Your task to perform on an android device: Search for seafood restaurants on Google Maps Image 0: 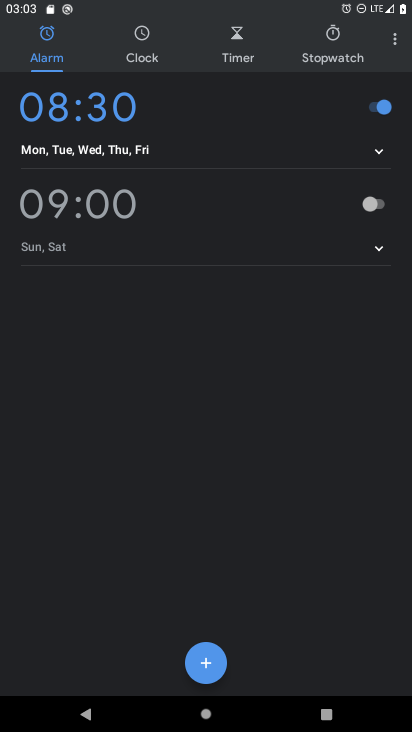
Step 0: drag from (273, 588) to (255, 110)
Your task to perform on an android device: Search for seafood restaurants on Google Maps Image 1: 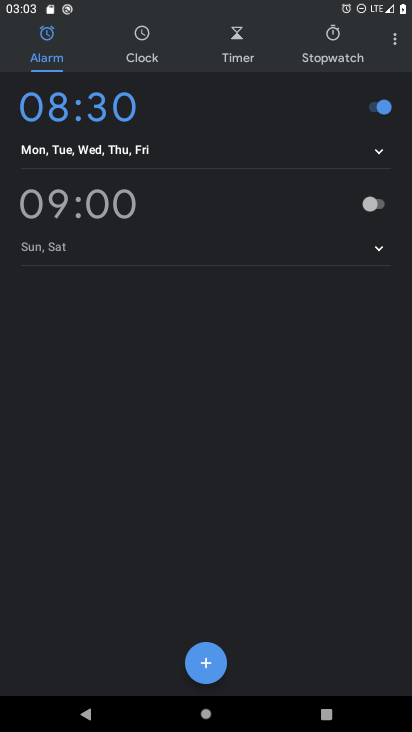
Step 1: press home button
Your task to perform on an android device: Search for seafood restaurants on Google Maps Image 2: 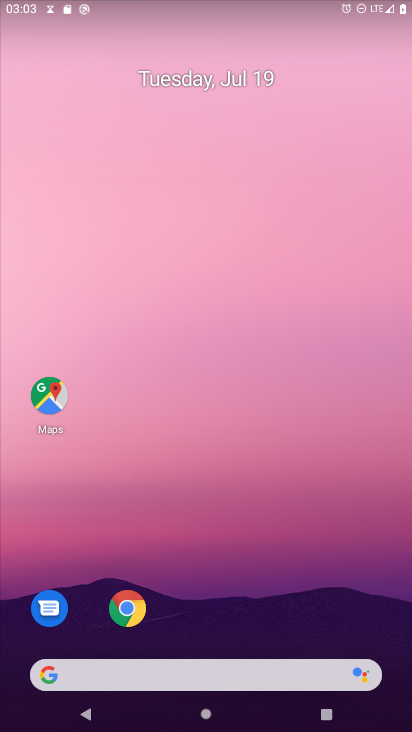
Step 2: drag from (248, 552) to (244, 115)
Your task to perform on an android device: Search for seafood restaurants on Google Maps Image 3: 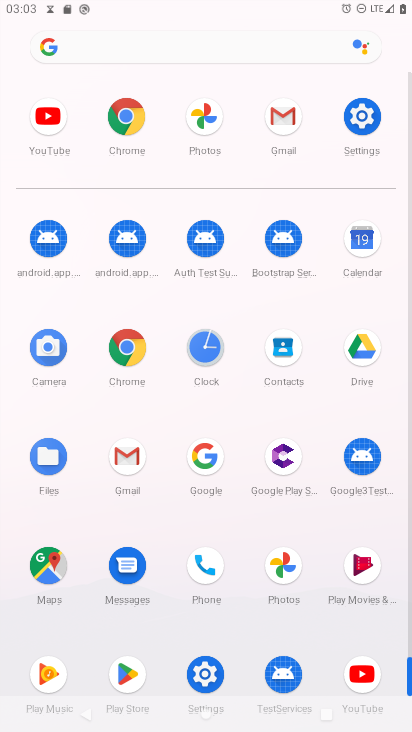
Step 3: click (58, 564)
Your task to perform on an android device: Search for seafood restaurants on Google Maps Image 4: 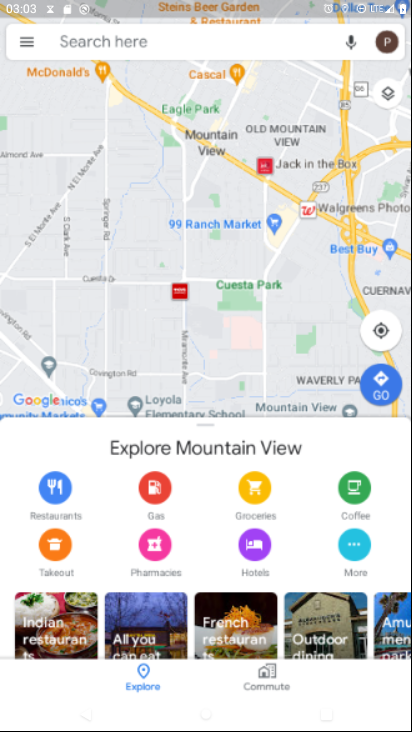
Step 4: click (196, 40)
Your task to perform on an android device: Search for seafood restaurants on Google Maps Image 5: 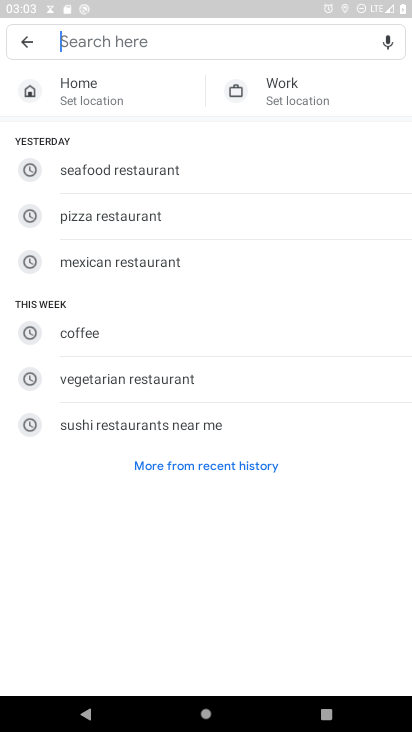
Step 5: click (136, 169)
Your task to perform on an android device: Search for seafood restaurants on Google Maps Image 6: 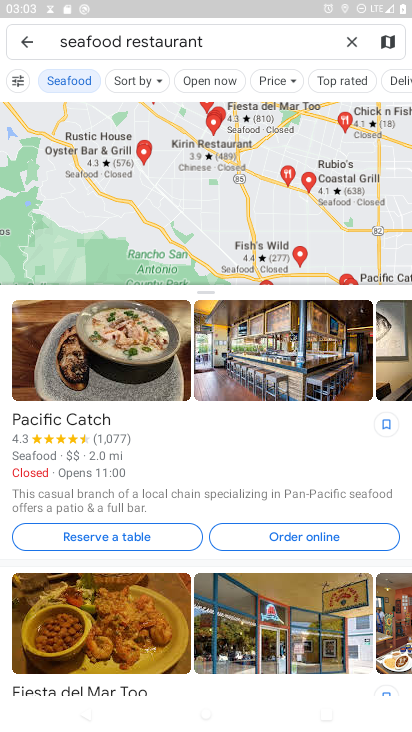
Step 6: task complete